Your task to perform on an android device: Add "usb-a" to the cart on ebay Image 0: 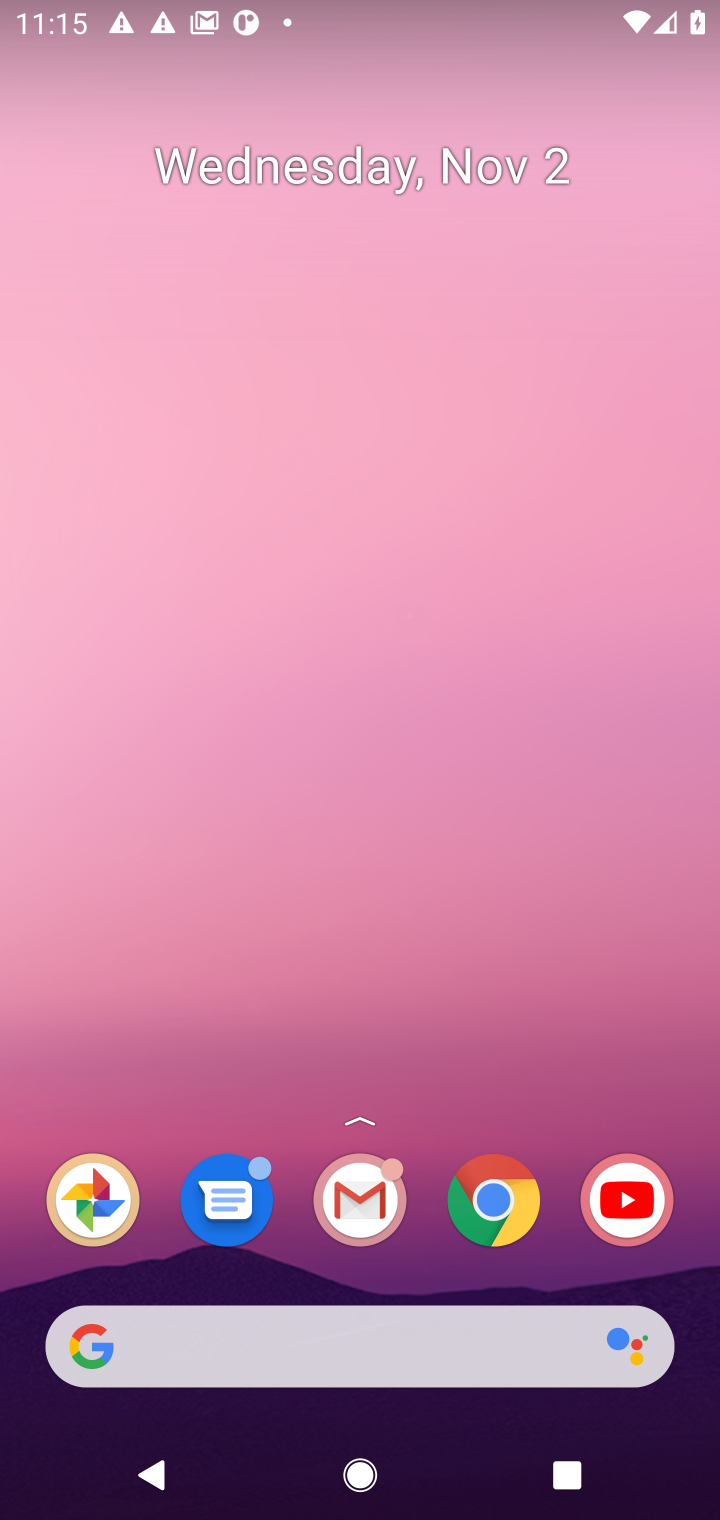
Step 0: click (506, 1189)
Your task to perform on an android device: Add "usb-a" to the cart on ebay Image 1: 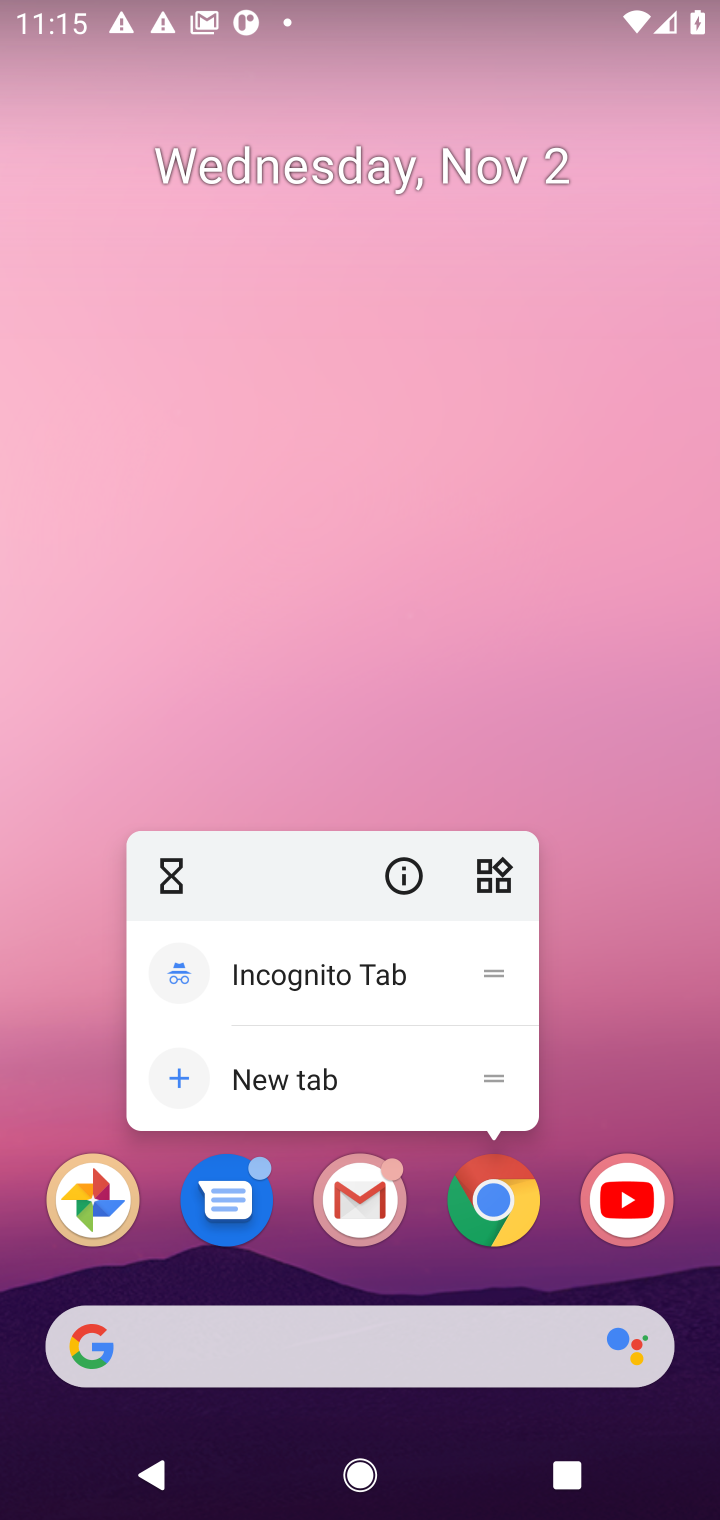
Step 1: click (506, 1189)
Your task to perform on an android device: Add "usb-a" to the cart on ebay Image 2: 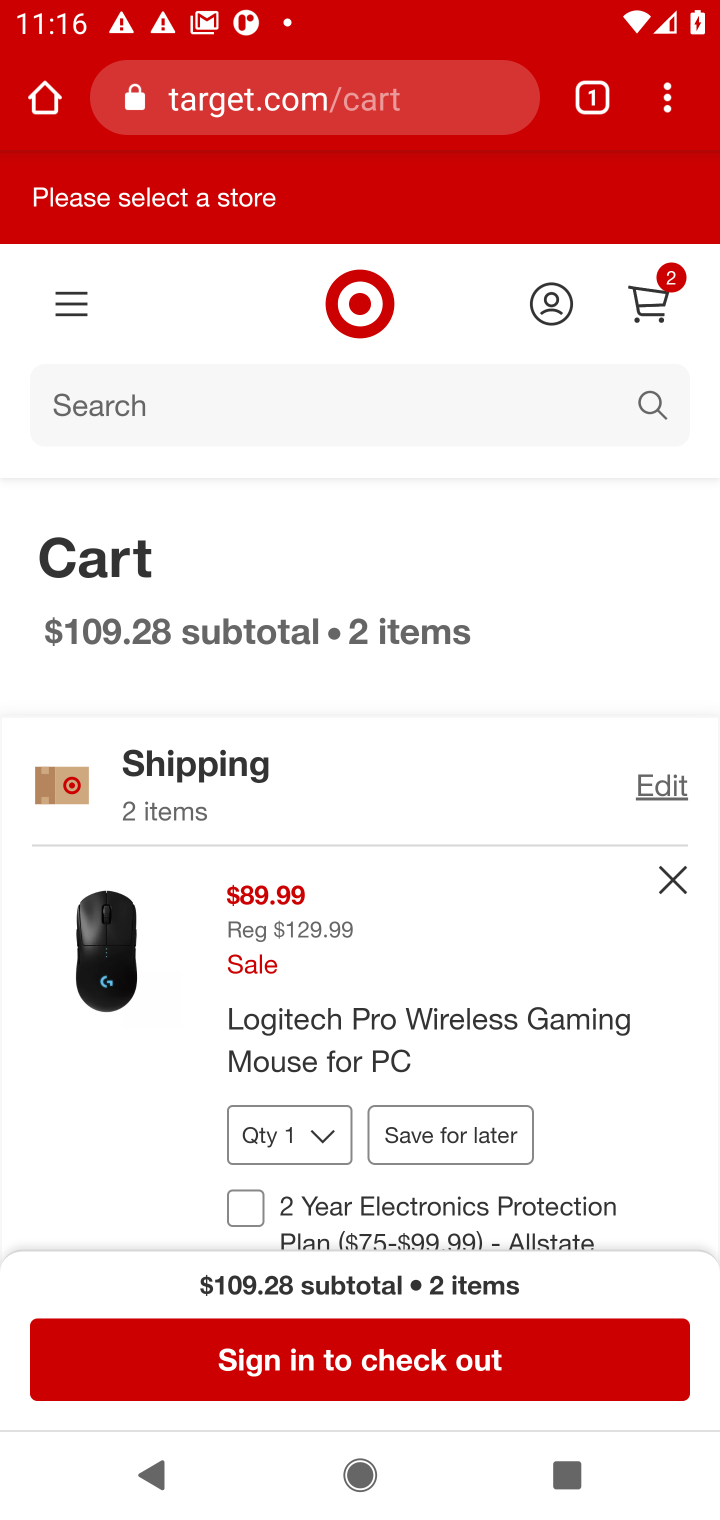
Step 2: click (315, 118)
Your task to perform on an android device: Add "usb-a" to the cart on ebay Image 3: 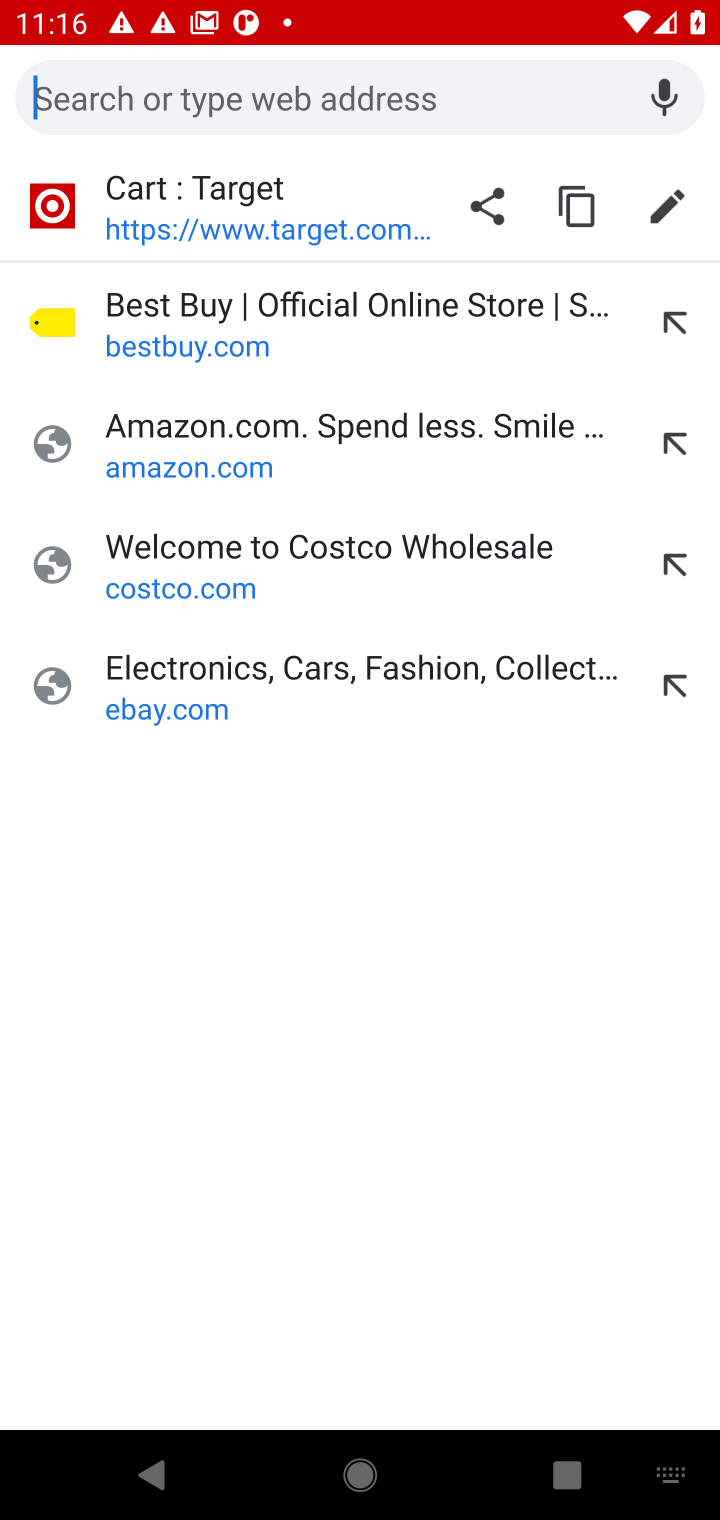
Step 3: press enter
Your task to perform on an android device: Add "usb-a" to the cart on ebay Image 4: 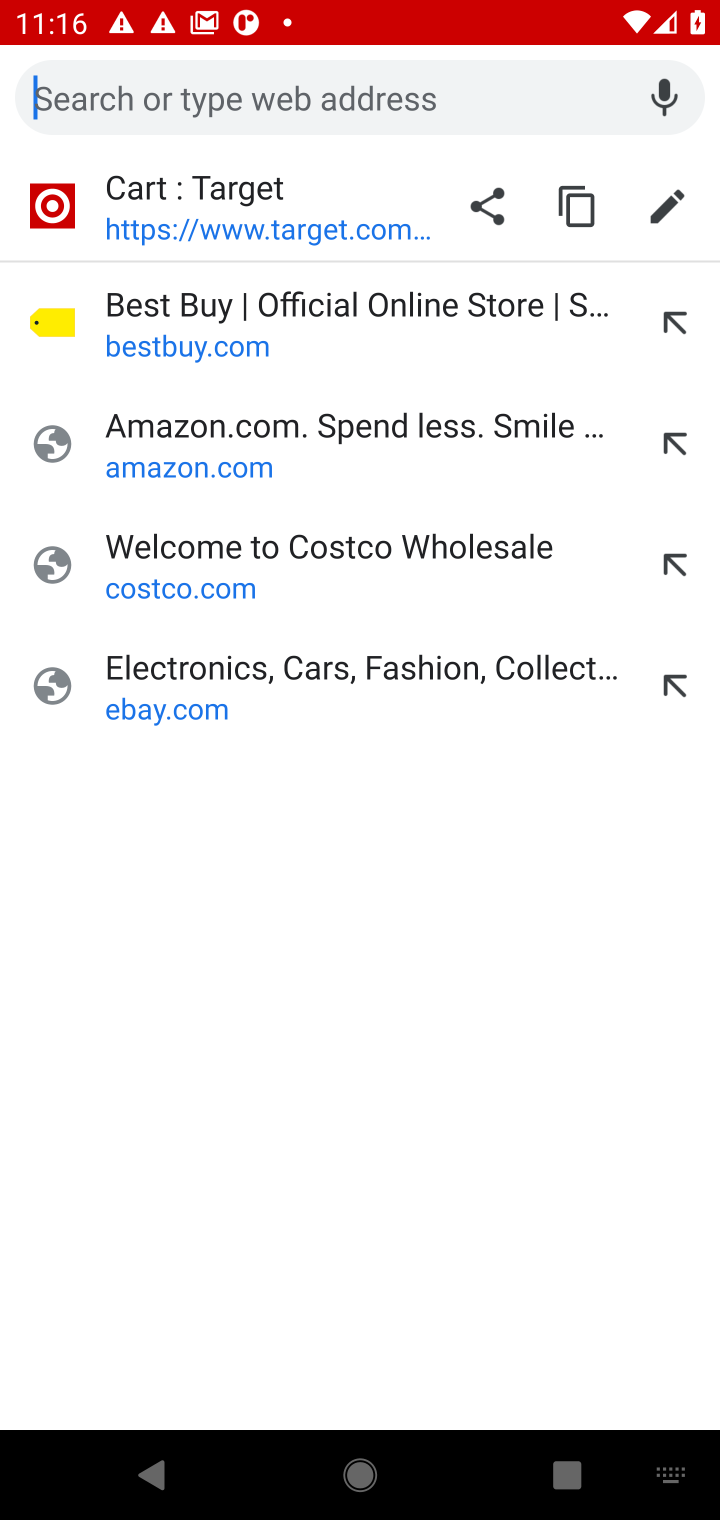
Step 4: type "ebay"
Your task to perform on an android device: Add "usb-a" to the cart on ebay Image 5: 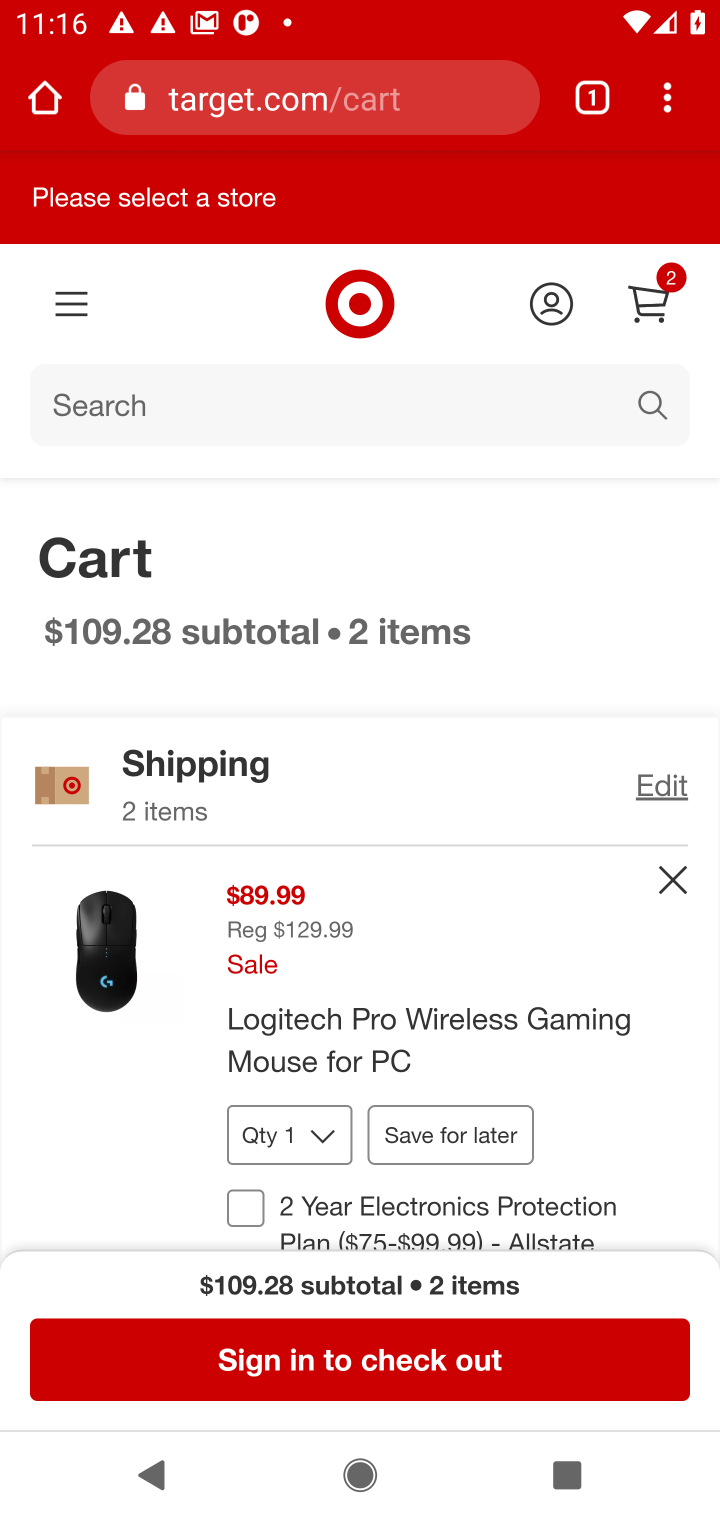
Step 5: click (34, 94)
Your task to perform on an android device: Add "usb-a" to the cart on ebay Image 6: 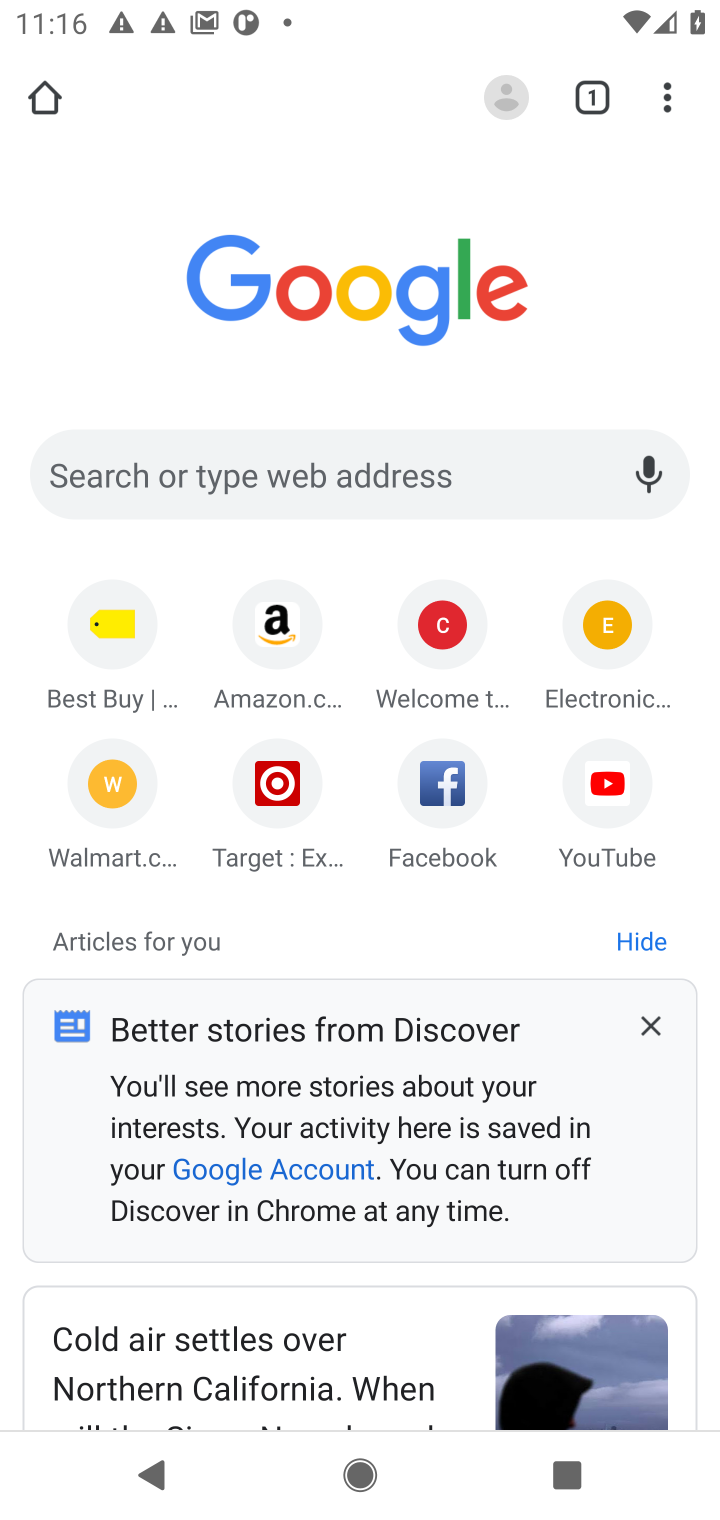
Step 6: click (546, 480)
Your task to perform on an android device: Add "usb-a" to the cart on ebay Image 7: 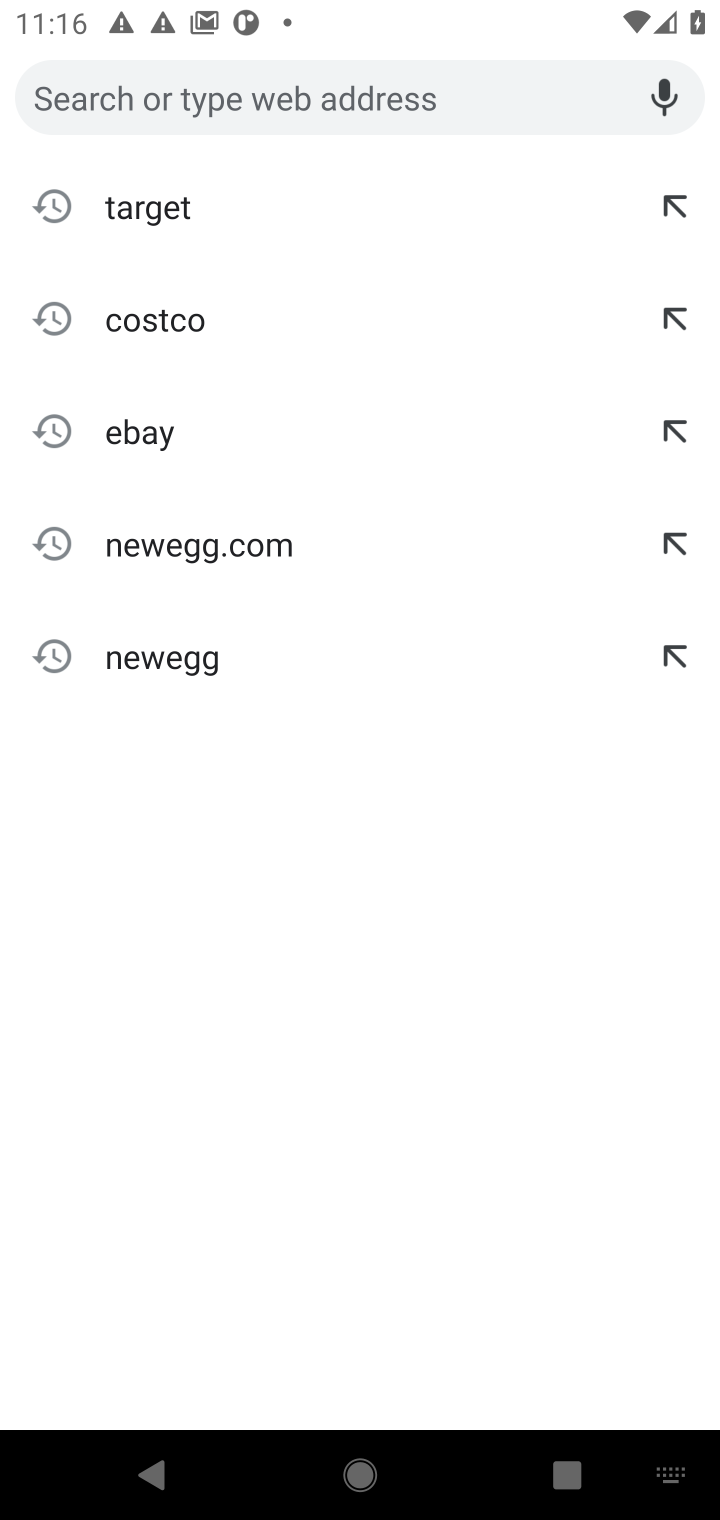
Step 7: click (158, 425)
Your task to perform on an android device: Add "usb-a" to the cart on ebay Image 8: 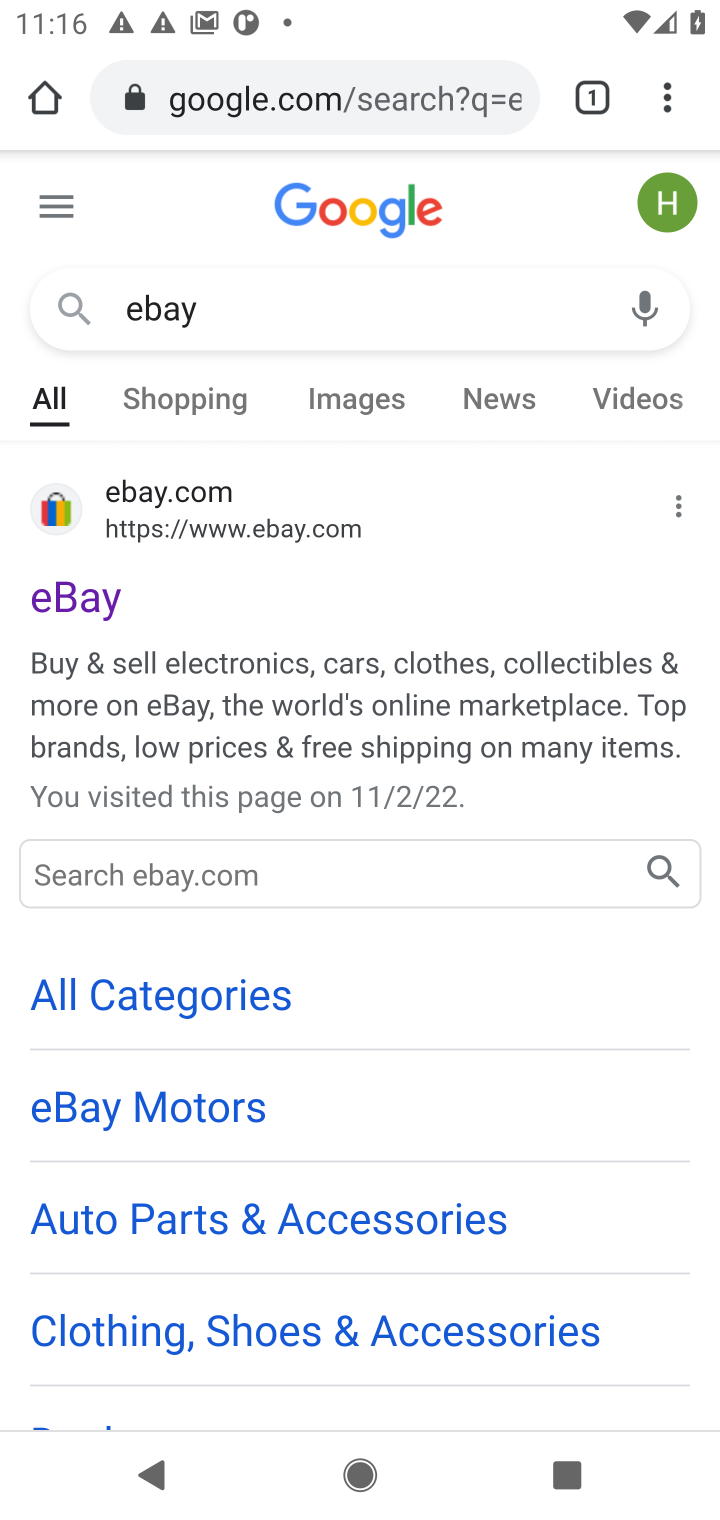
Step 8: click (185, 502)
Your task to perform on an android device: Add "usb-a" to the cart on ebay Image 9: 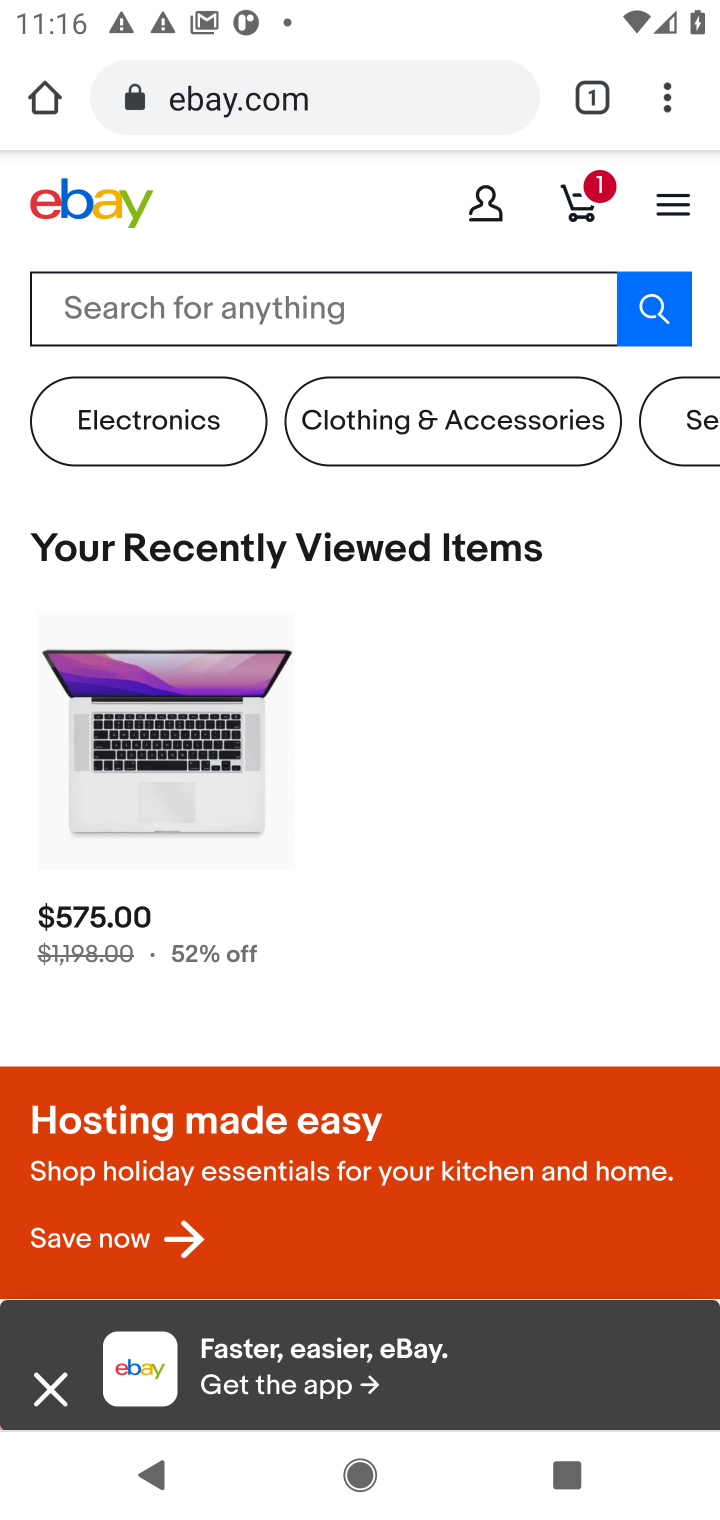
Step 9: click (391, 309)
Your task to perform on an android device: Add "usb-a" to the cart on ebay Image 10: 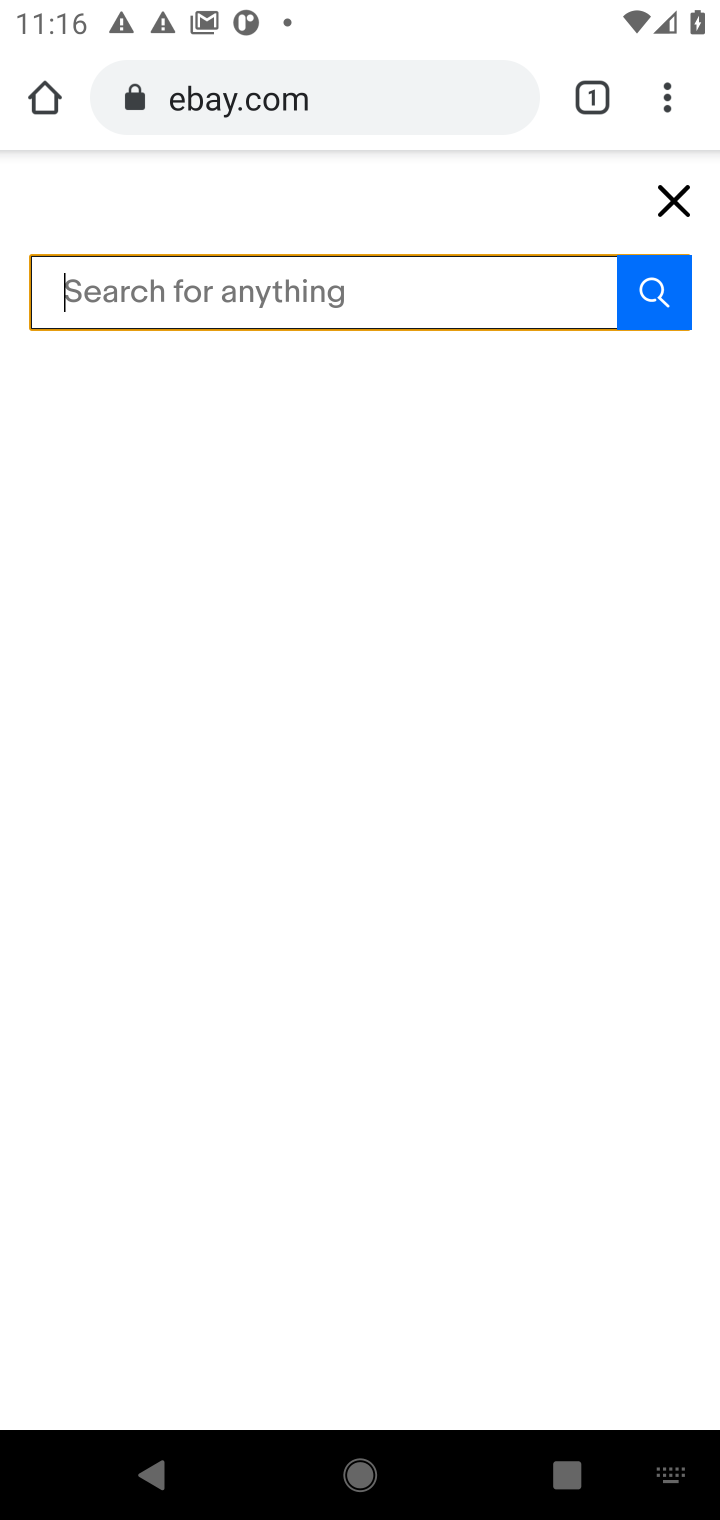
Step 10: type "usb-a"
Your task to perform on an android device: Add "usb-a" to the cart on ebay Image 11: 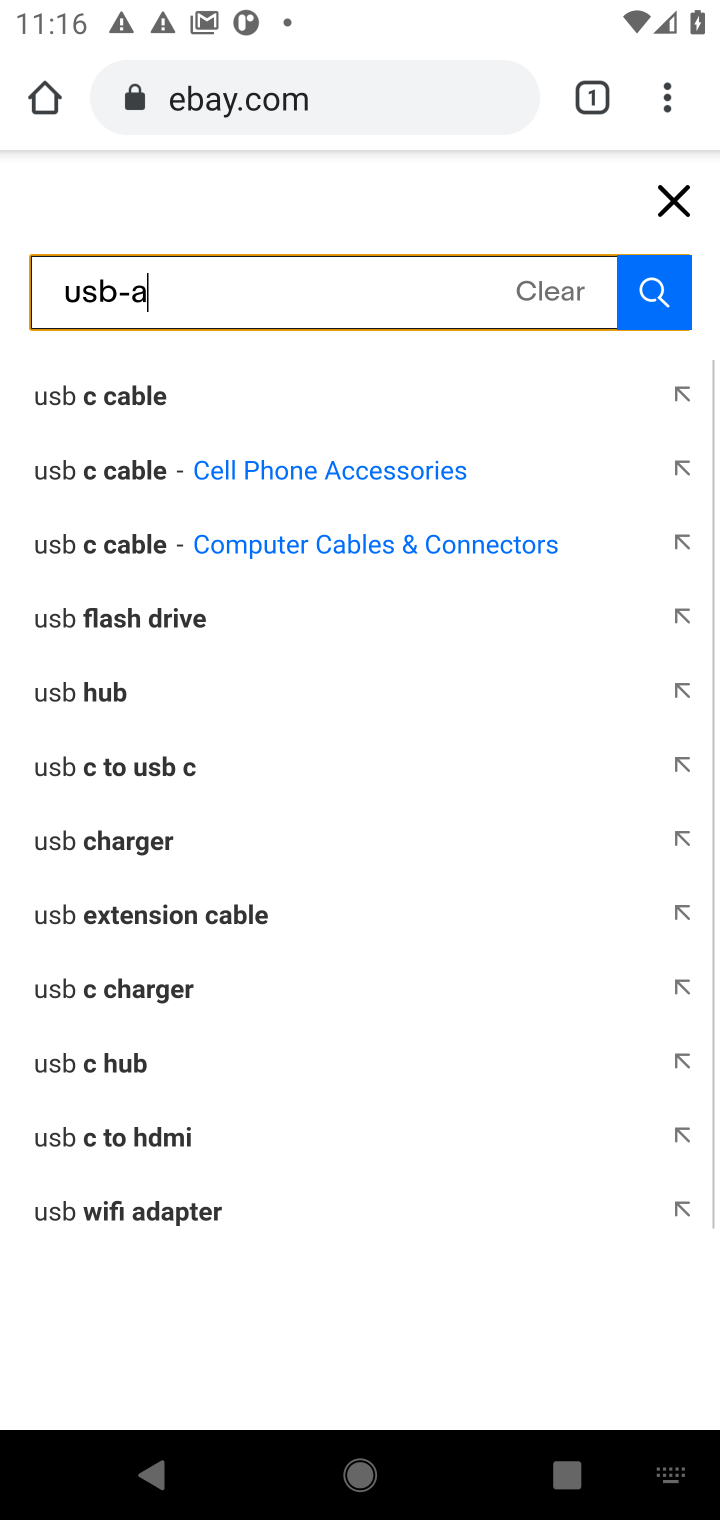
Step 11: press enter
Your task to perform on an android device: Add "usb-a" to the cart on ebay Image 12: 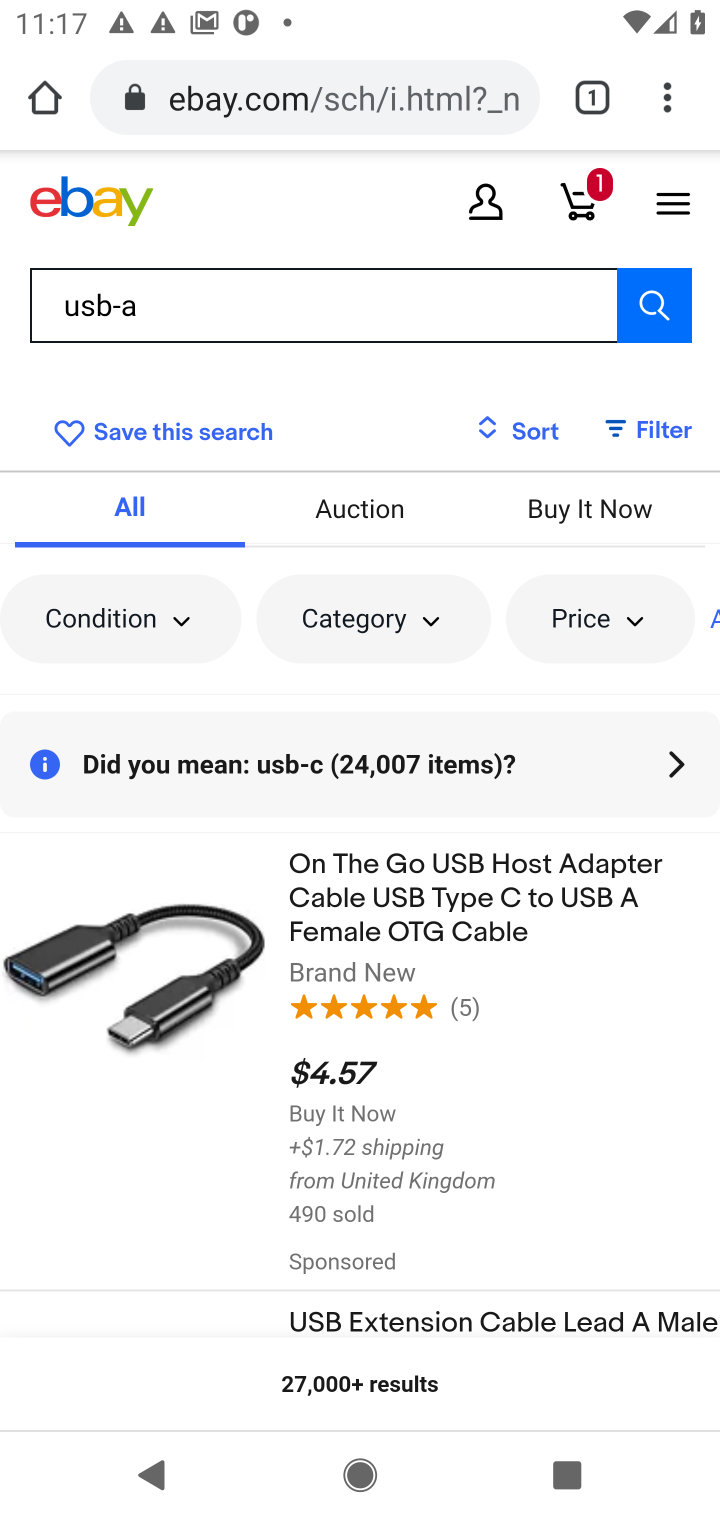
Step 12: click (532, 910)
Your task to perform on an android device: Add "usb-a" to the cart on ebay Image 13: 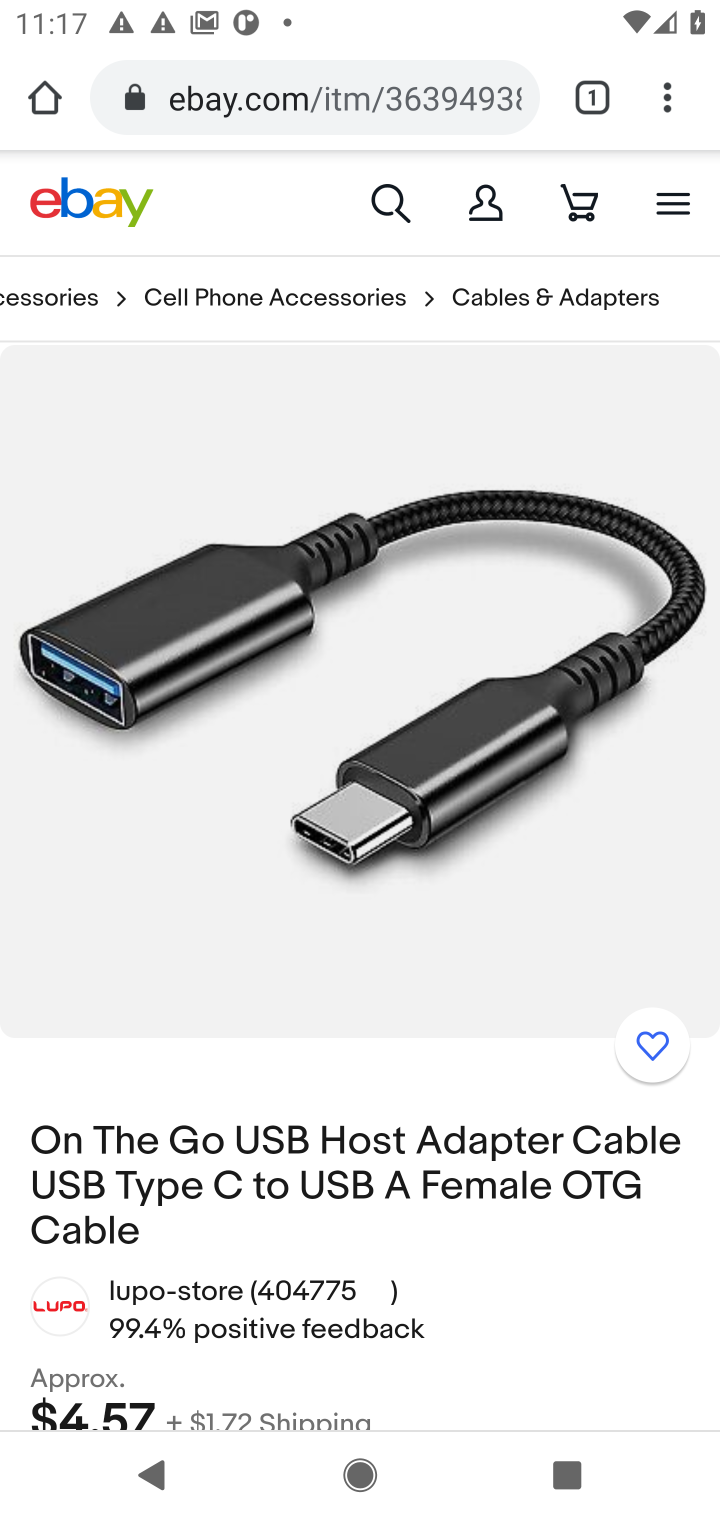
Step 13: drag from (565, 1237) to (482, 553)
Your task to perform on an android device: Add "usb-a" to the cart on ebay Image 14: 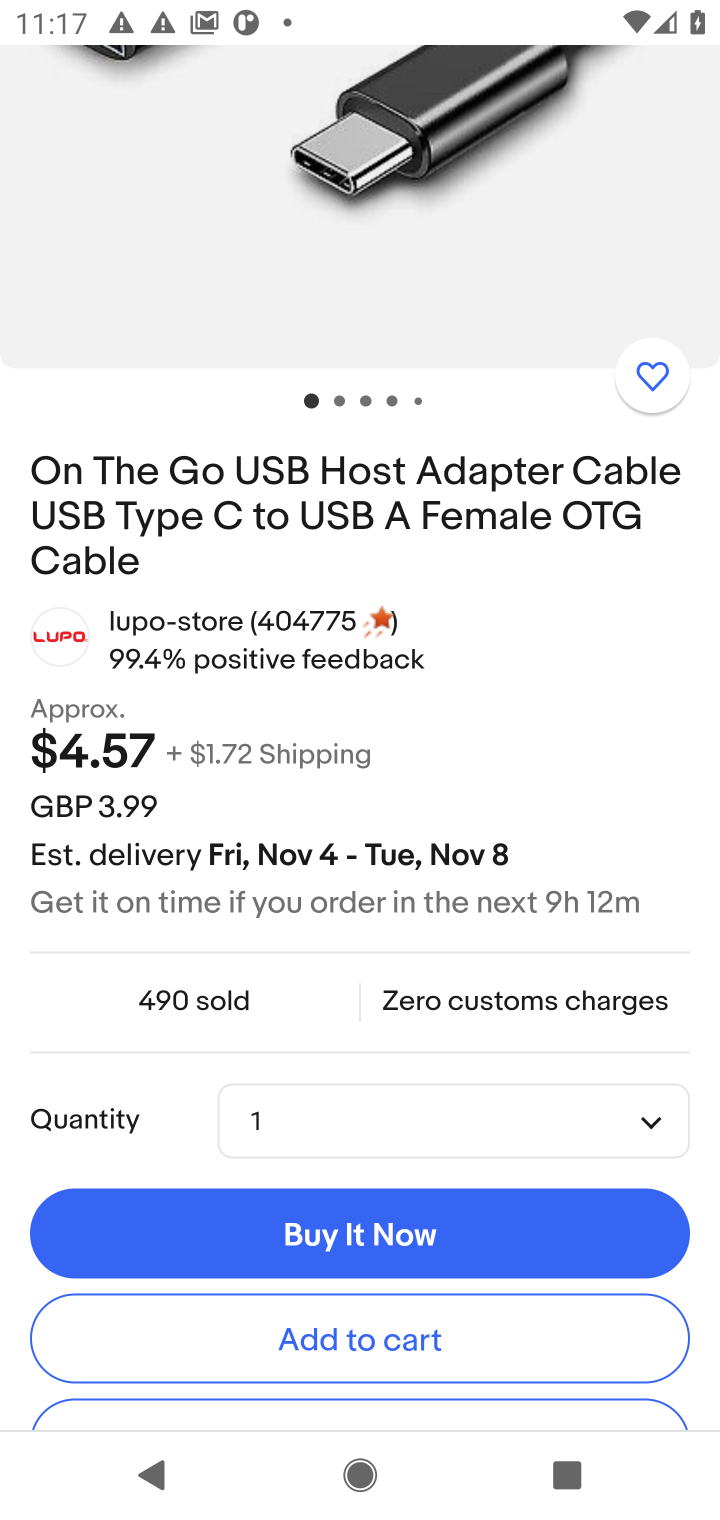
Step 14: drag from (505, 1017) to (456, 514)
Your task to perform on an android device: Add "usb-a" to the cart on ebay Image 15: 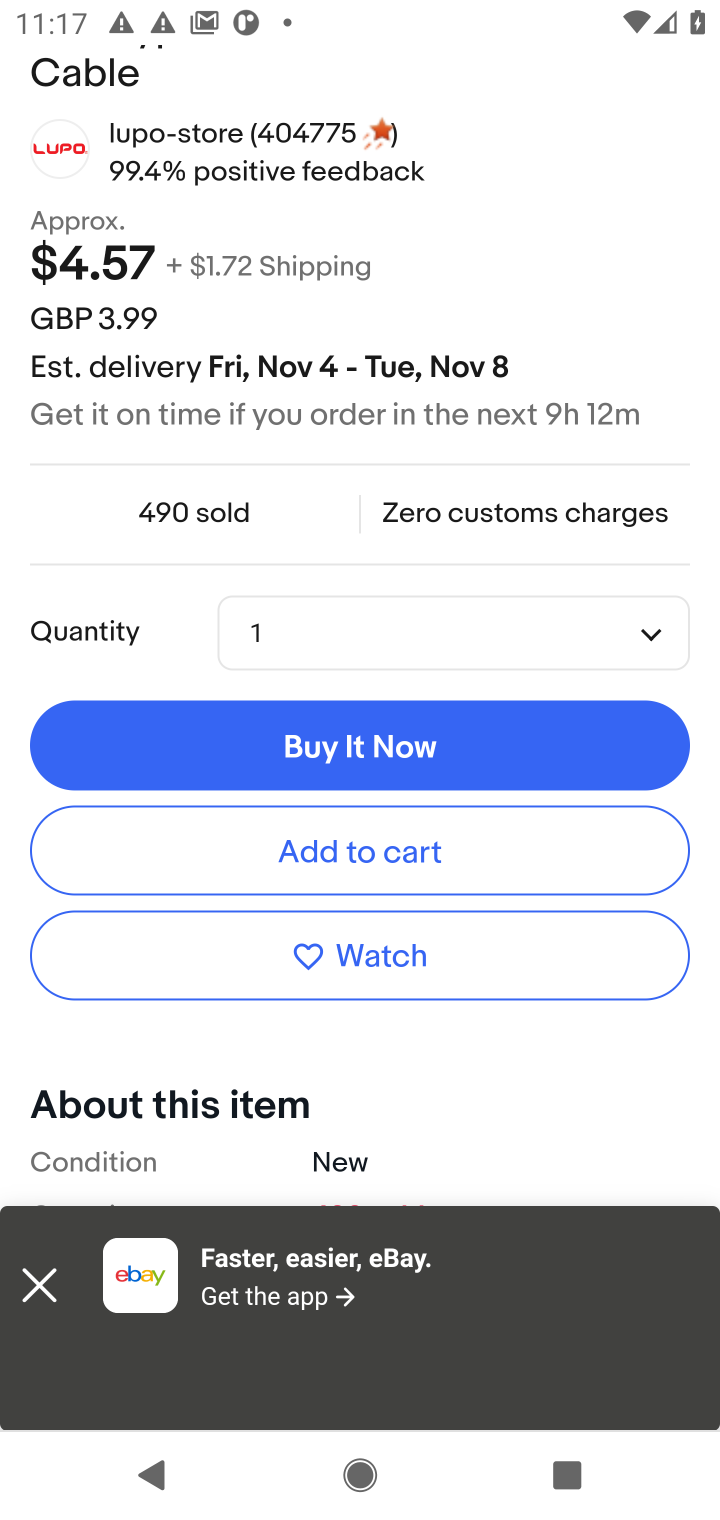
Step 15: click (411, 852)
Your task to perform on an android device: Add "usb-a" to the cart on ebay Image 16: 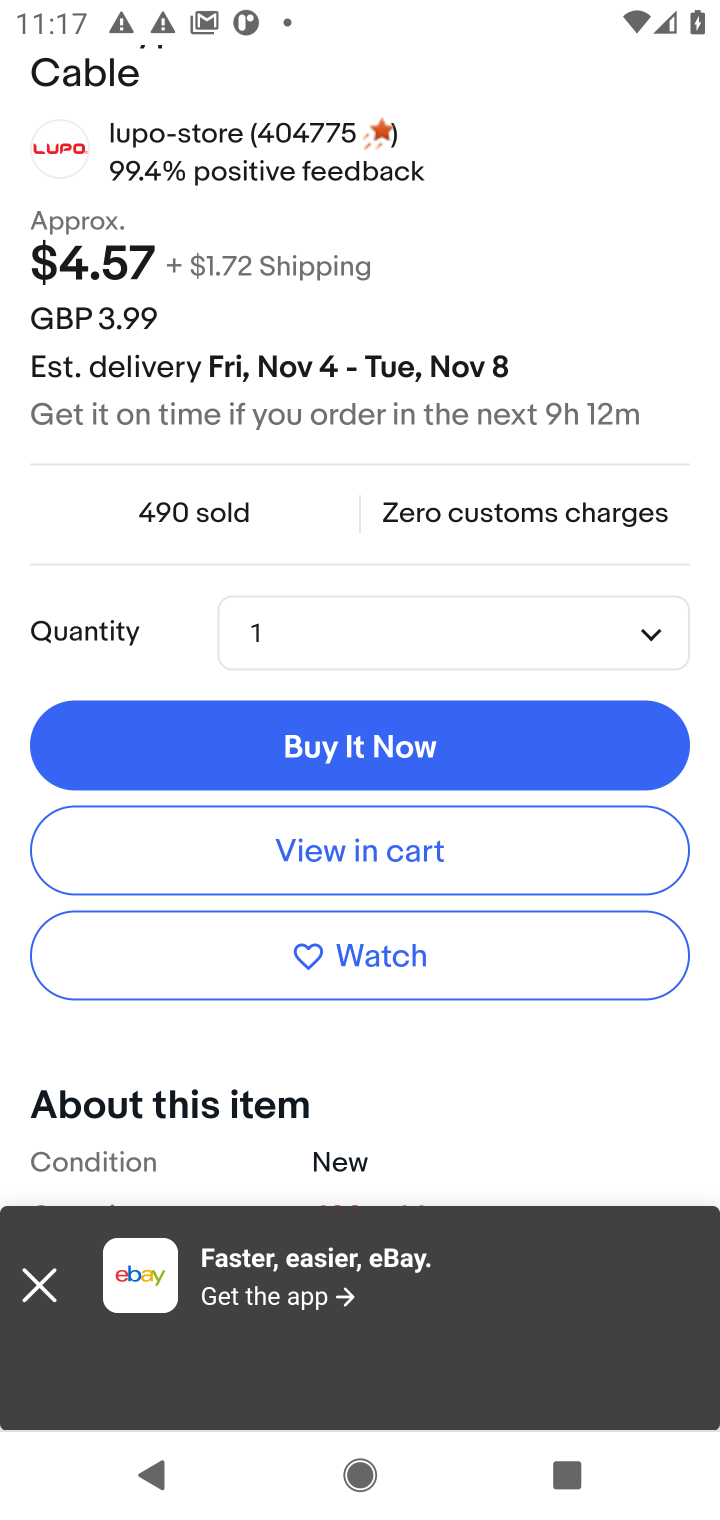
Step 16: task complete